Your task to perform on an android device: turn on sleep mode Image 0: 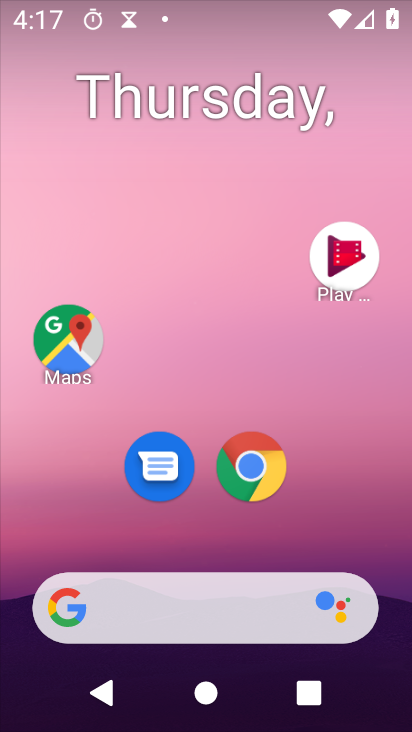
Step 0: drag from (312, 610) to (309, 4)
Your task to perform on an android device: turn on sleep mode Image 1: 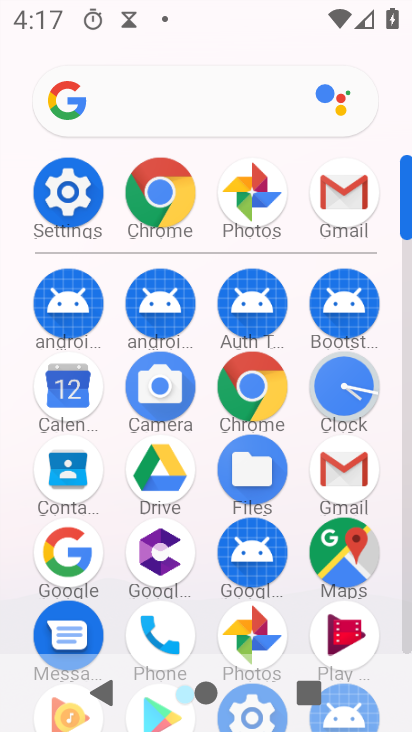
Step 1: click (68, 206)
Your task to perform on an android device: turn on sleep mode Image 2: 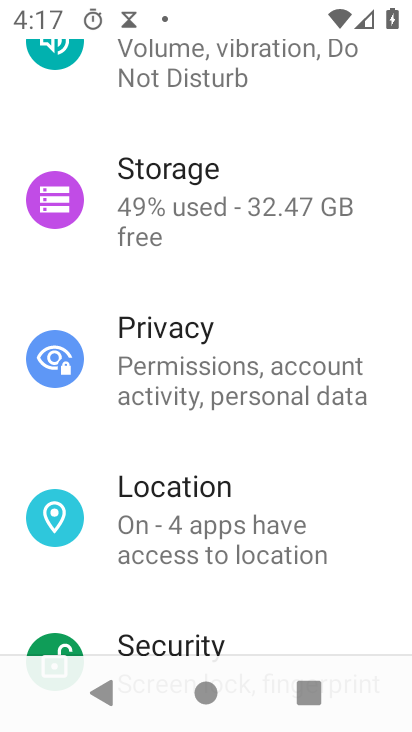
Step 2: drag from (256, 147) to (286, 723)
Your task to perform on an android device: turn on sleep mode Image 3: 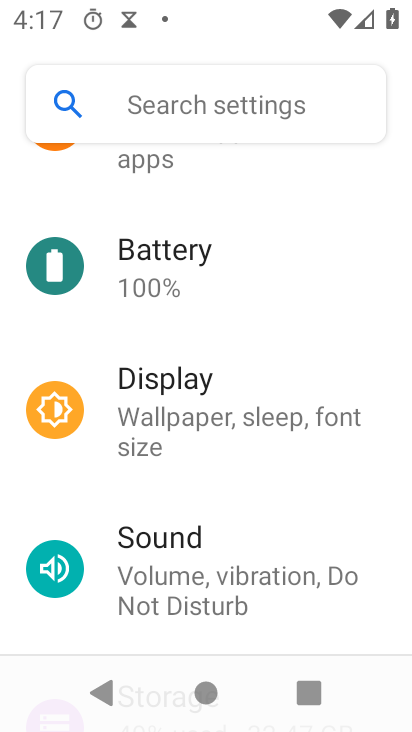
Step 3: click (248, 416)
Your task to perform on an android device: turn on sleep mode Image 4: 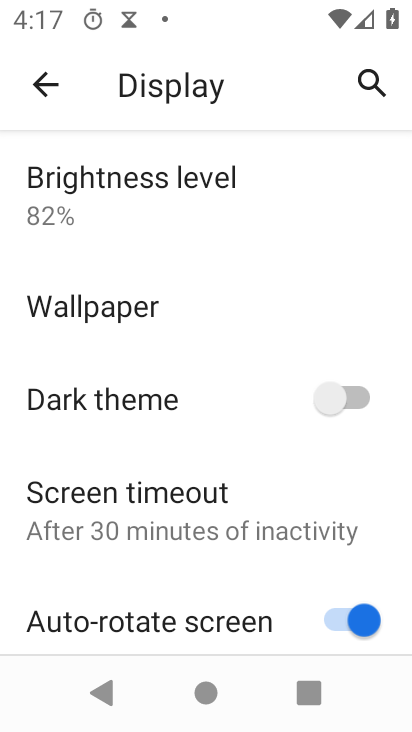
Step 4: task complete